Your task to perform on an android device: What is the recent news? Image 0: 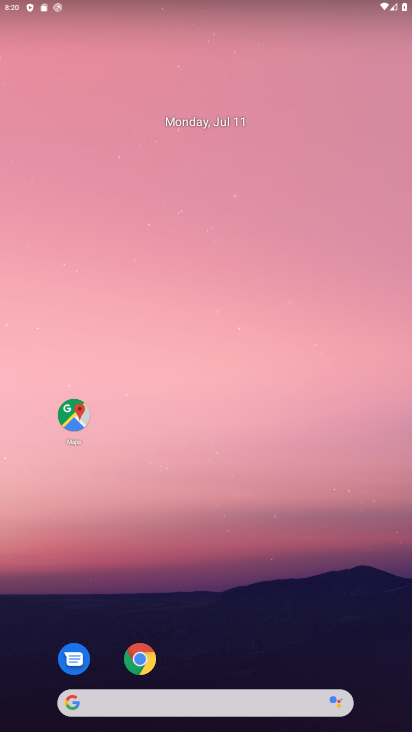
Step 0: click (117, 708)
Your task to perform on an android device: What is the recent news? Image 1: 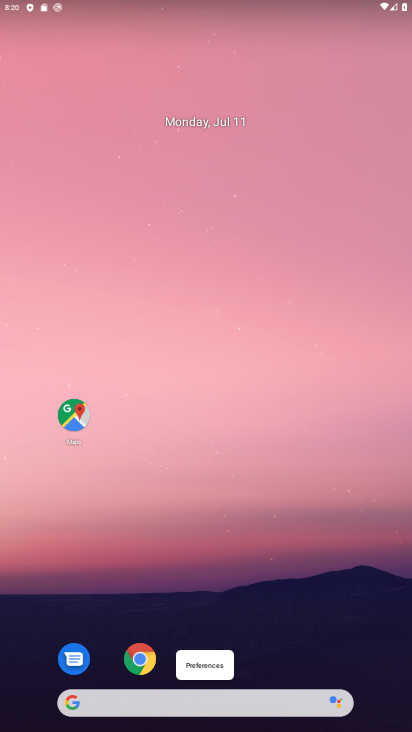
Step 1: click (121, 706)
Your task to perform on an android device: What is the recent news? Image 2: 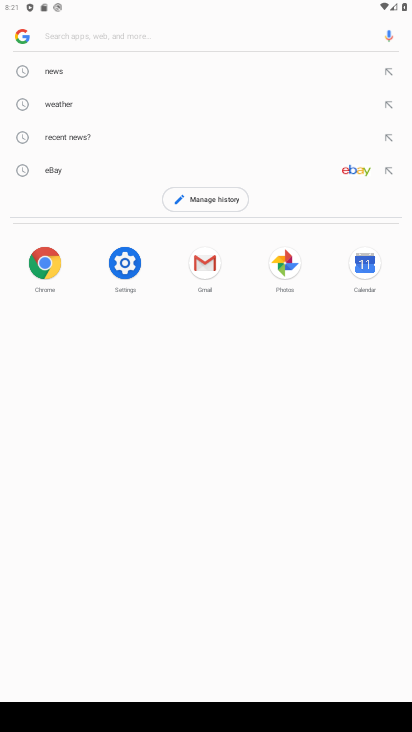
Step 2: type "What is the recent news?"
Your task to perform on an android device: What is the recent news? Image 3: 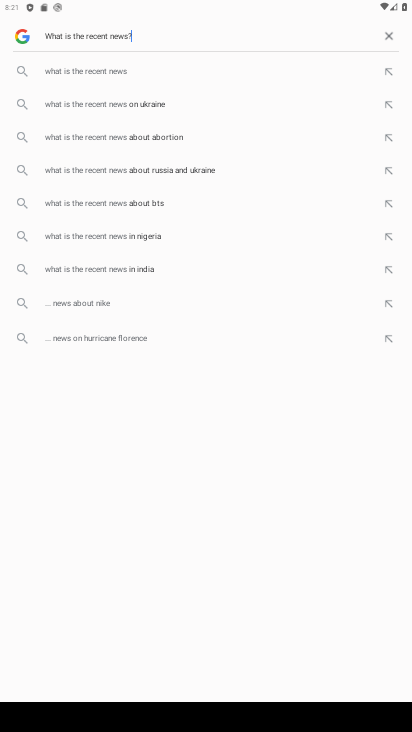
Step 3: type ""
Your task to perform on an android device: What is the recent news? Image 4: 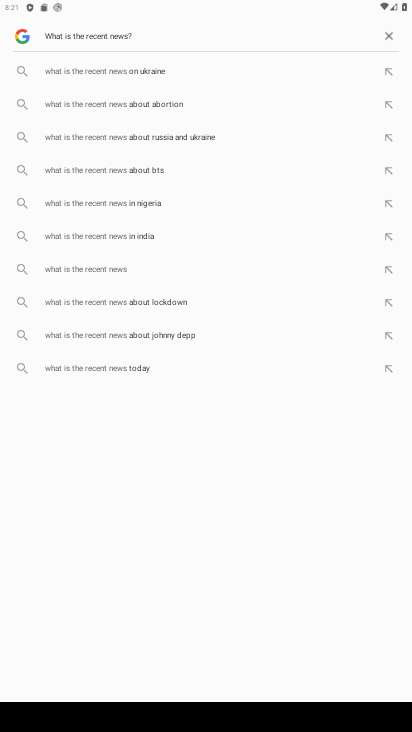
Step 4: type ""
Your task to perform on an android device: What is the recent news? Image 5: 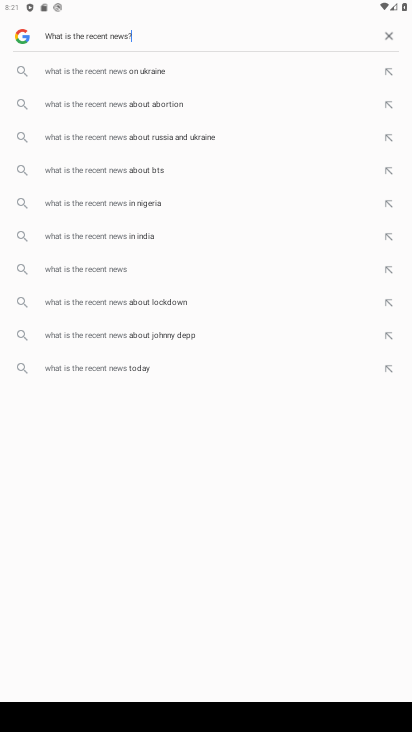
Step 5: type ""
Your task to perform on an android device: What is the recent news? Image 6: 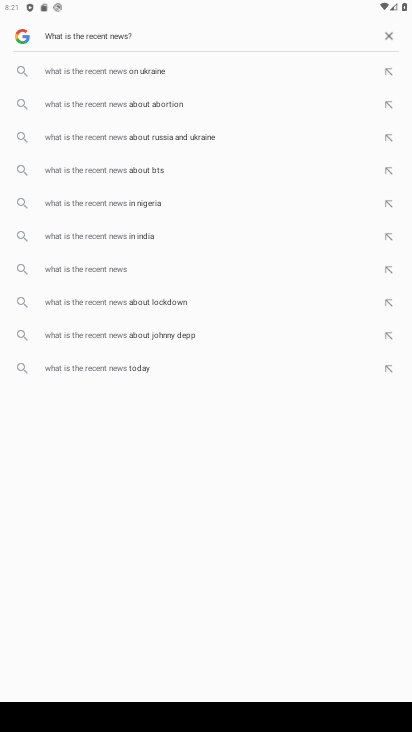
Step 6: task complete